Your task to perform on an android device: allow cookies in the chrome app Image 0: 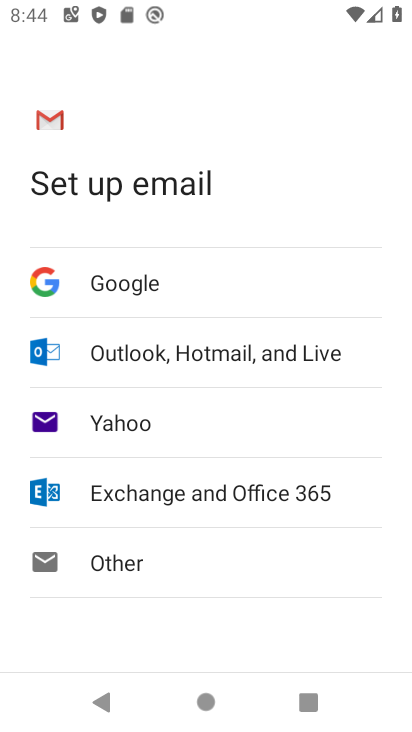
Step 0: press home button
Your task to perform on an android device: allow cookies in the chrome app Image 1: 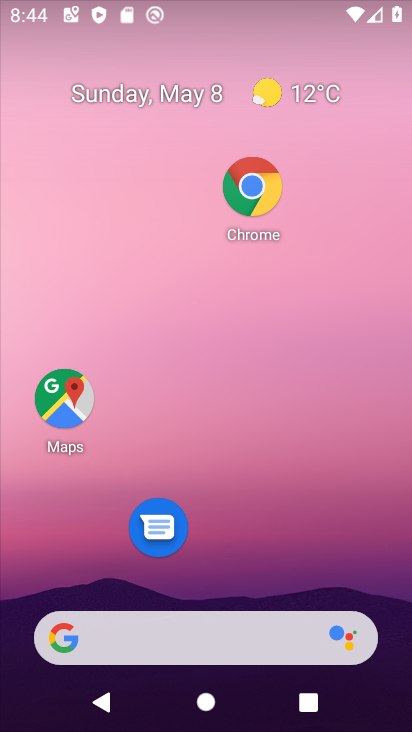
Step 1: drag from (300, 535) to (339, 275)
Your task to perform on an android device: allow cookies in the chrome app Image 2: 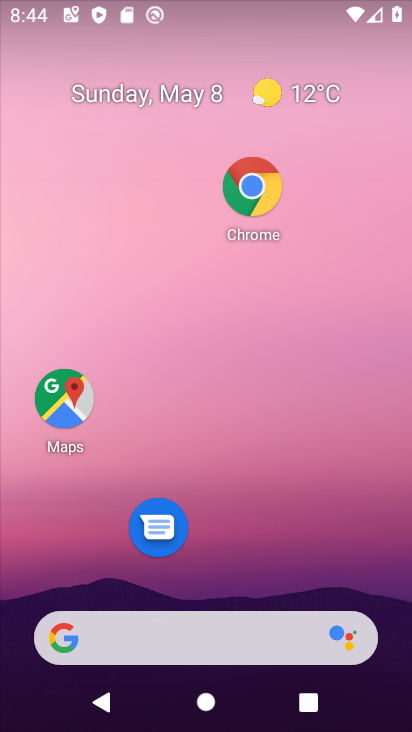
Step 2: drag from (264, 558) to (323, 245)
Your task to perform on an android device: allow cookies in the chrome app Image 3: 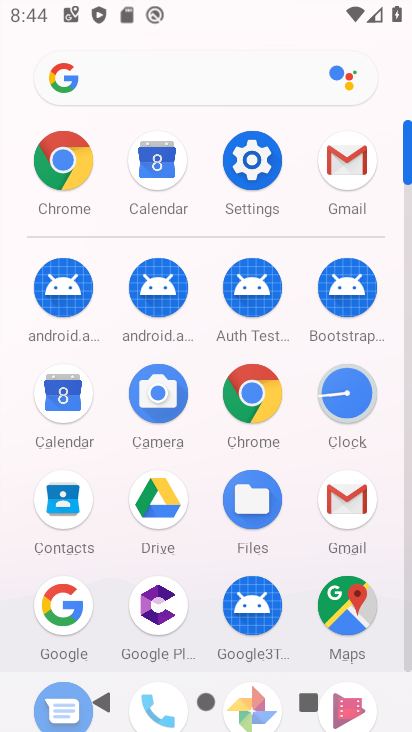
Step 3: click (247, 393)
Your task to perform on an android device: allow cookies in the chrome app Image 4: 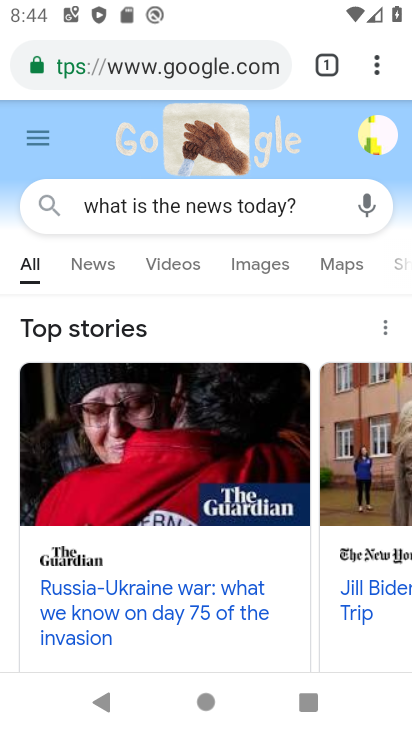
Step 4: click (369, 61)
Your task to perform on an android device: allow cookies in the chrome app Image 5: 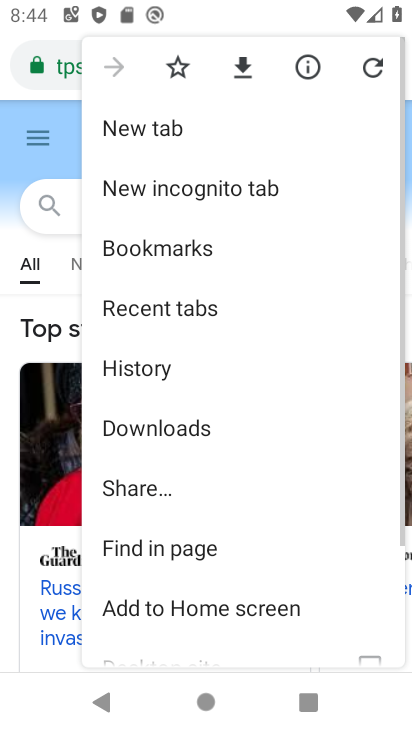
Step 5: drag from (172, 545) to (232, 269)
Your task to perform on an android device: allow cookies in the chrome app Image 6: 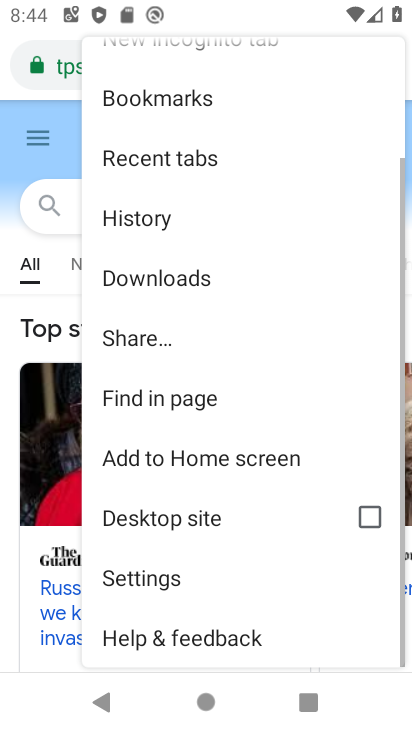
Step 6: click (145, 576)
Your task to perform on an android device: allow cookies in the chrome app Image 7: 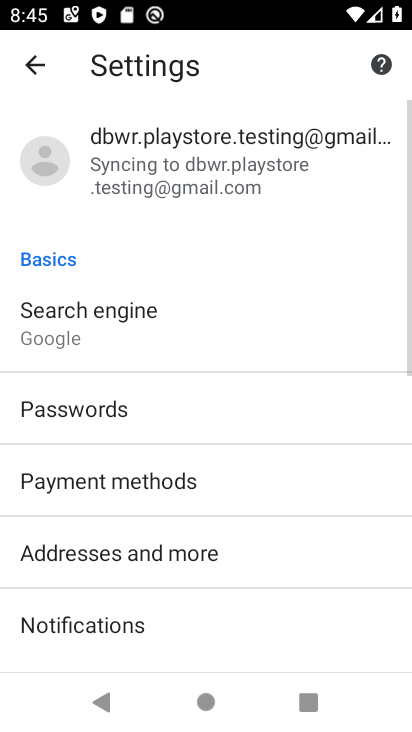
Step 7: drag from (155, 626) to (262, 225)
Your task to perform on an android device: allow cookies in the chrome app Image 8: 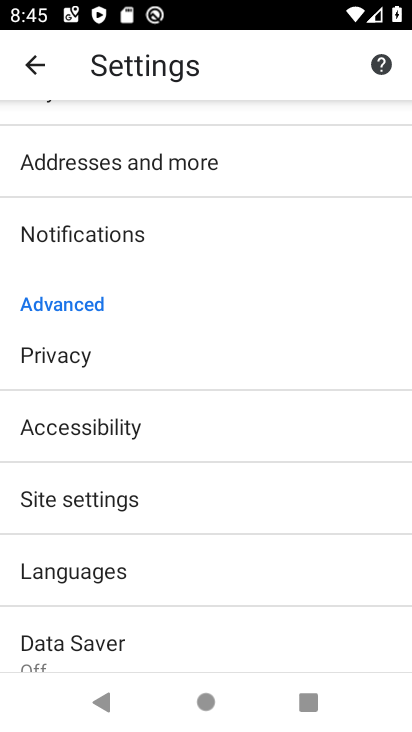
Step 8: click (124, 491)
Your task to perform on an android device: allow cookies in the chrome app Image 9: 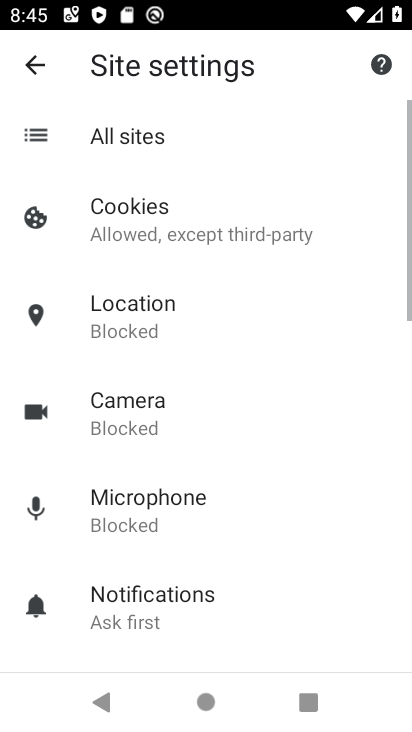
Step 9: click (107, 204)
Your task to perform on an android device: allow cookies in the chrome app Image 10: 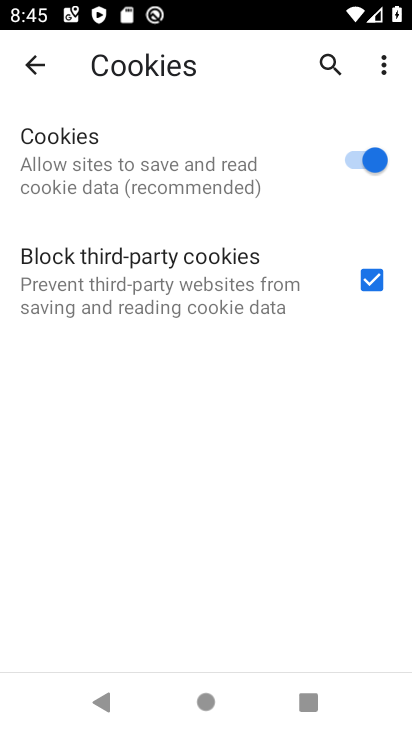
Step 10: task complete